Your task to perform on an android device: Is it going to rain tomorrow? Image 0: 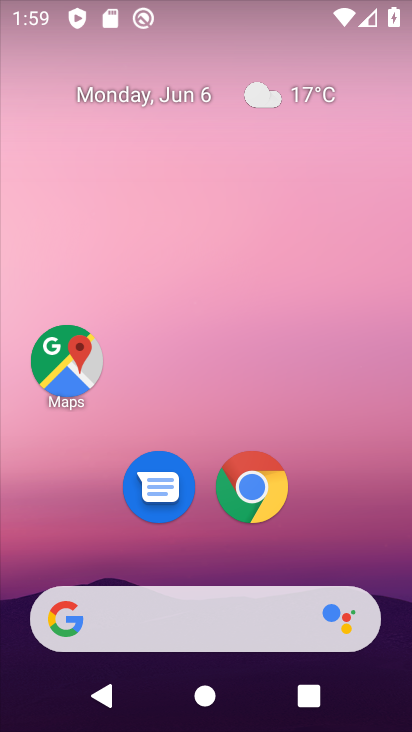
Step 0: drag from (296, 550) to (351, 77)
Your task to perform on an android device: Is it going to rain tomorrow? Image 1: 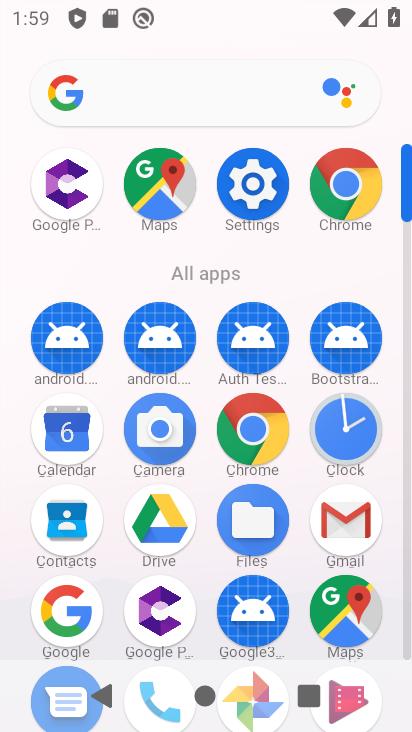
Step 1: click (64, 422)
Your task to perform on an android device: Is it going to rain tomorrow? Image 2: 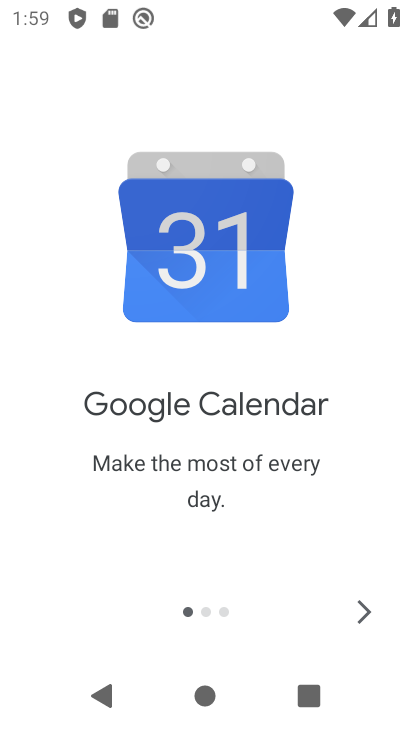
Step 2: click (357, 608)
Your task to perform on an android device: Is it going to rain tomorrow? Image 3: 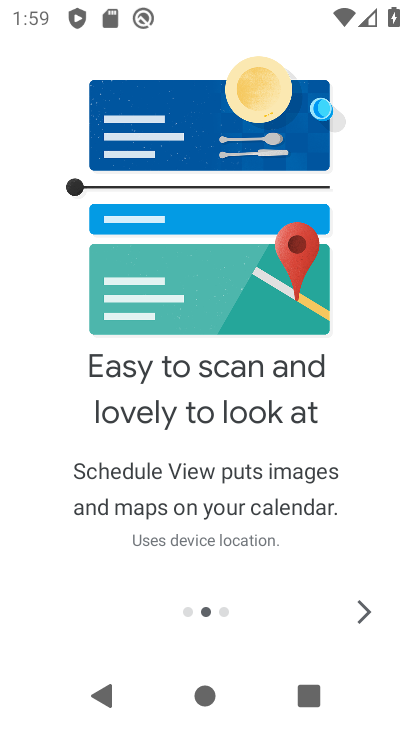
Step 3: click (357, 608)
Your task to perform on an android device: Is it going to rain tomorrow? Image 4: 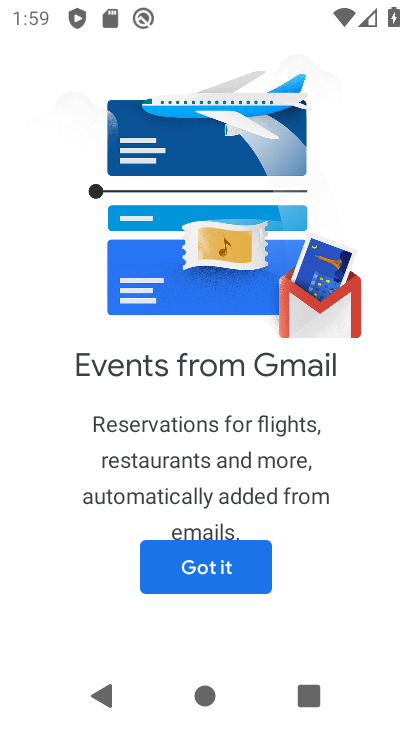
Step 4: click (226, 573)
Your task to perform on an android device: Is it going to rain tomorrow? Image 5: 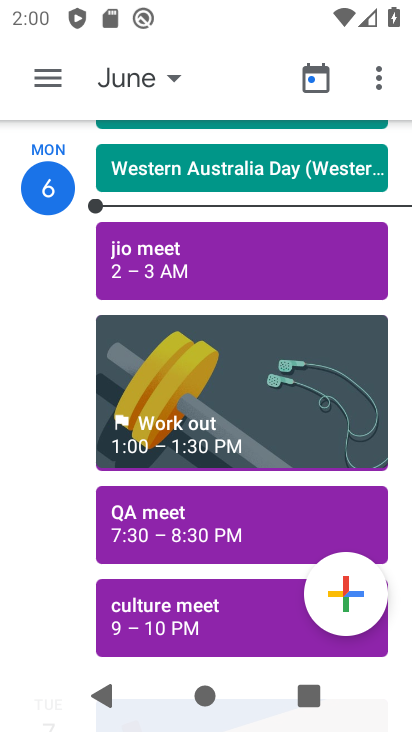
Step 5: drag from (92, 525) to (167, 337)
Your task to perform on an android device: Is it going to rain tomorrow? Image 6: 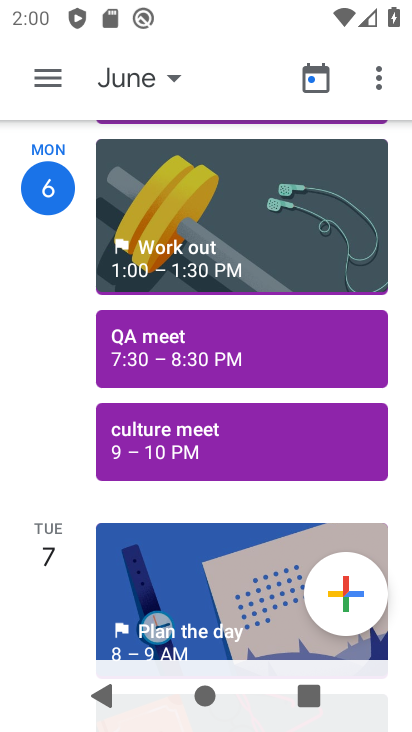
Step 6: click (59, 549)
Your task to perform on an android device: Is it going to rain tomorrow? Image 7: 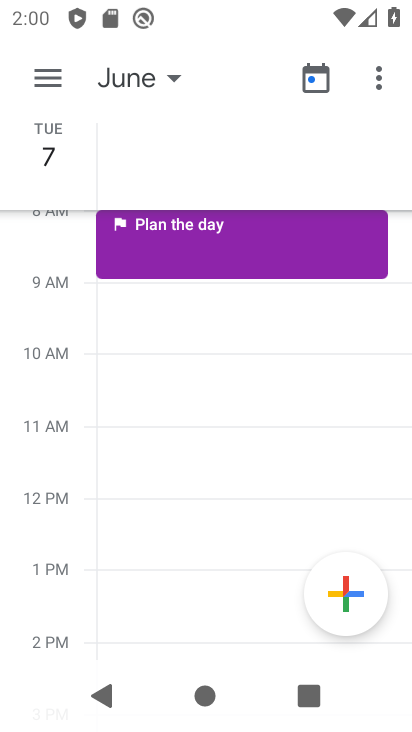
Step 7: task complete